Your task to perform on an android device: Open settings Image 0: 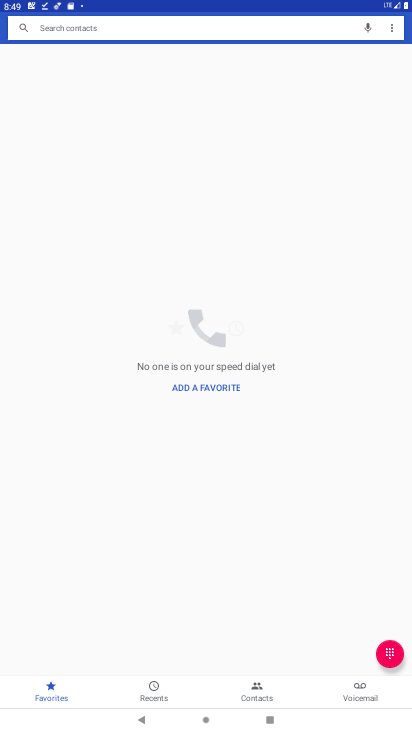
Step 0: press home button
Your task to perform on an android device: Open settings Image 1: 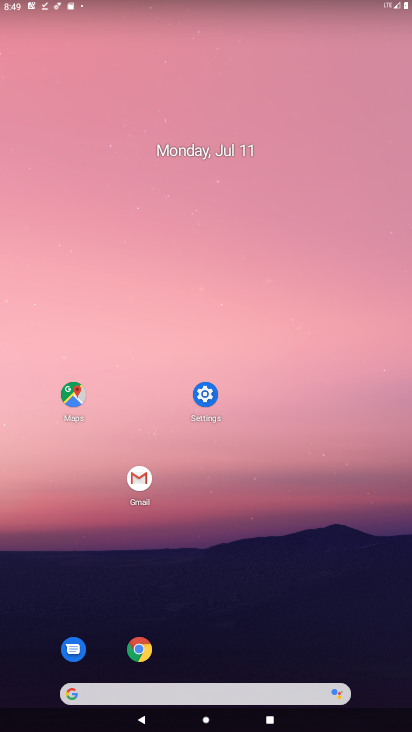
Step 1: click (211, 389)
Your task to perform on an android device: Open settings Image 2: 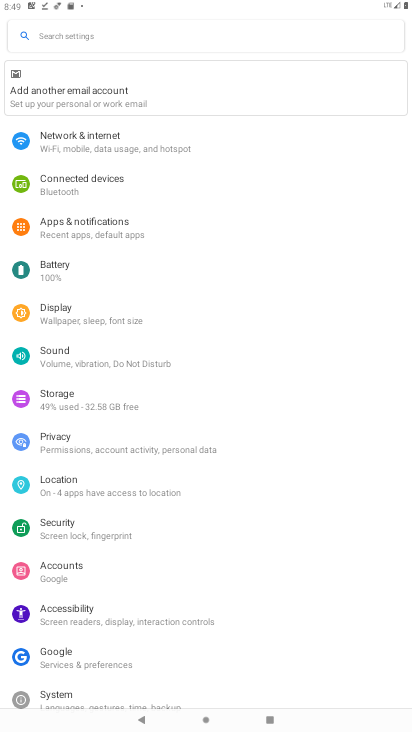
Step 2: task complete